Your task to perform on an android device: turn off improve location accuracy Image 0: 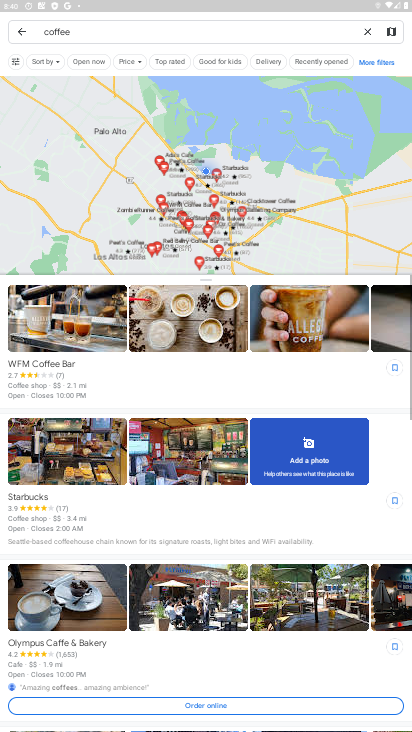
Step 0: drag from (144, 570) to (189, 249)
Your task to perform on an android device: turn off improve location accuracy Image 1: 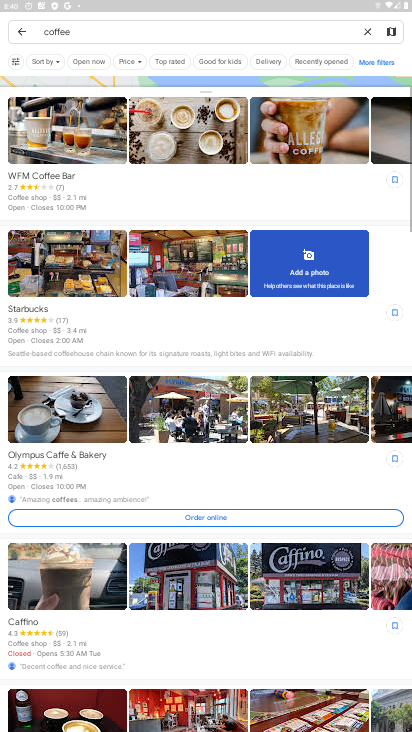
Step 1: drag from (399, 714) to (409, 680)
Your task to perform on an android device: turn off improve location accuracy Image 2: 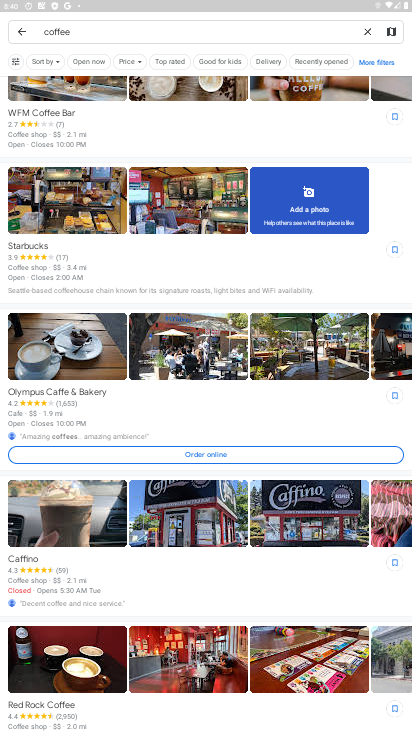
Step 2: drag from (248, 207) to (325, 544)
Your task to perform on an android device: turn off improve location accuracy Image 3: 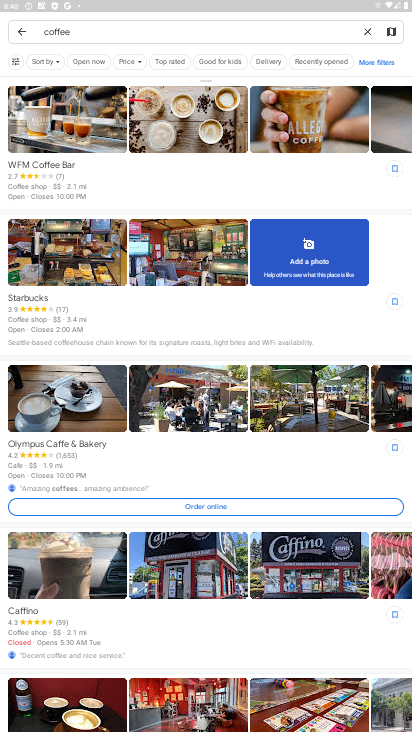
Step 3: drag from (245, 599) to (245, 218)
Your task to perform on an android device: turn off improve location accuracy Image 4: 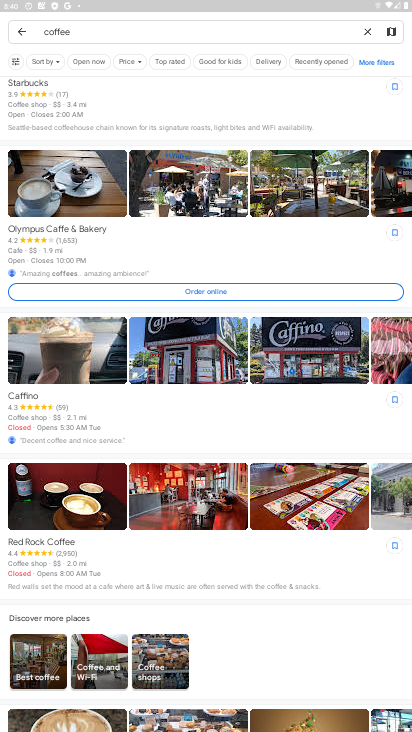
Step 4: drag from (253, 630) to (337, 94)
Your task to perform on an android device: turn off improve location accuracy Image 5: 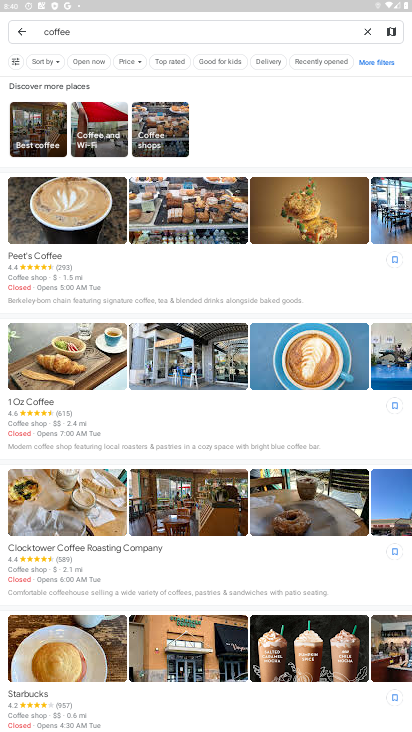
Step 5: drag from (232, 135) to (255, 615)
Your task to perform on an android device: turn off improve location accuracy Image 6: 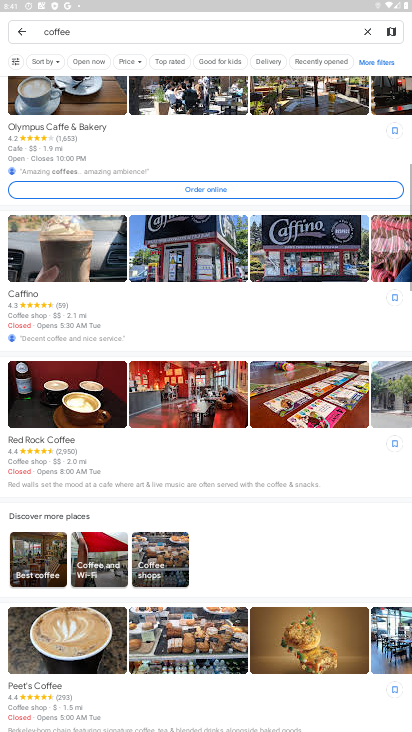
Step 6: click (208, 244)
Your task to perform on an android device: turn off improve location accuracy Image 7: 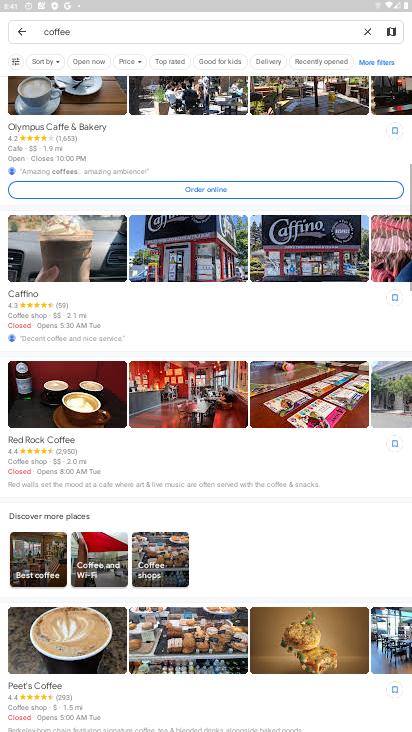
Step 7: drag from (201, 182) to (298, 670)
Your task to perform on an android device: turn off improve location accuracy Image 8: 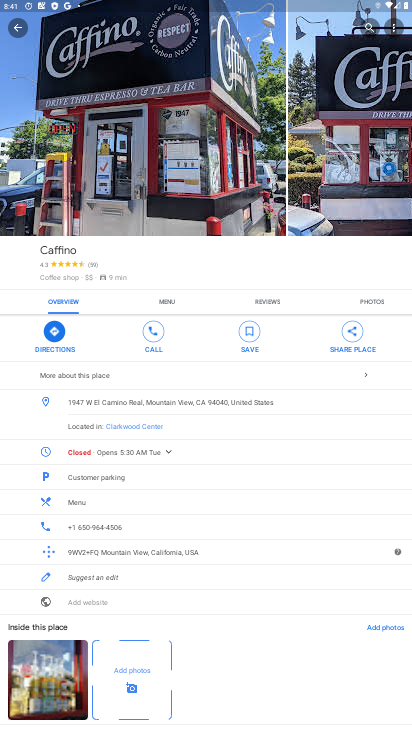
Step 8: drag from (204, 149) to (264, 730)
Your task to perform on an android device: turn off improve location accuracy Image 9: 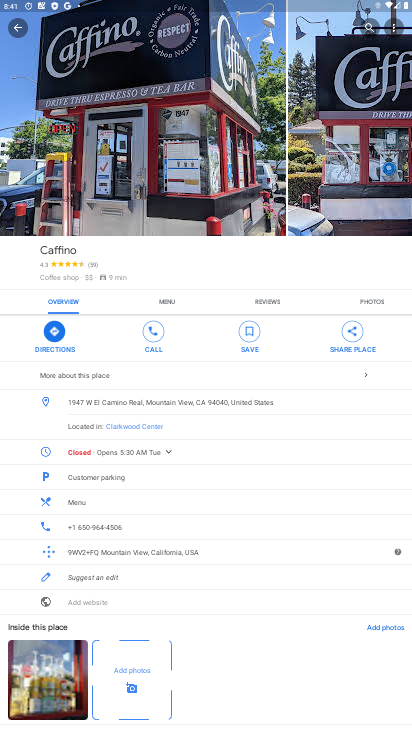
Step 9: press home button
Your task to perform on an android device: turn off improve location accuracy Image 10: 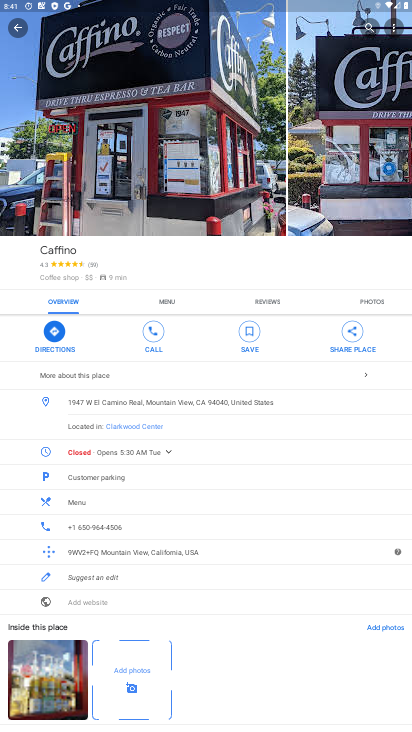
Step 10: press home button
Your task to perform on an android device: turn off improve location accuracy Image 11: 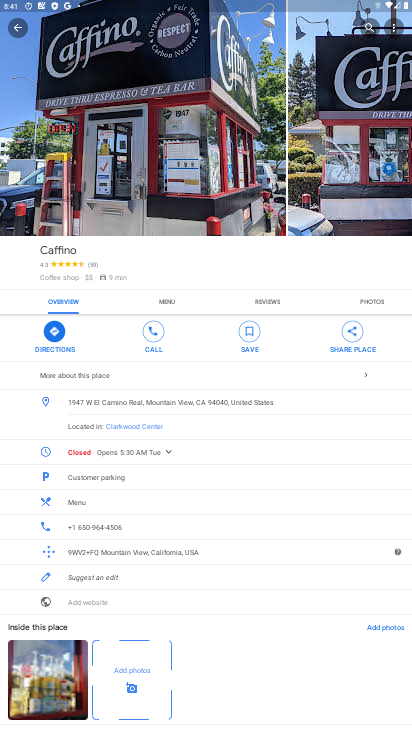
Step 11: click (287, 34)
Your task to perform on an android device: turn off improve location accuracy Image 12: 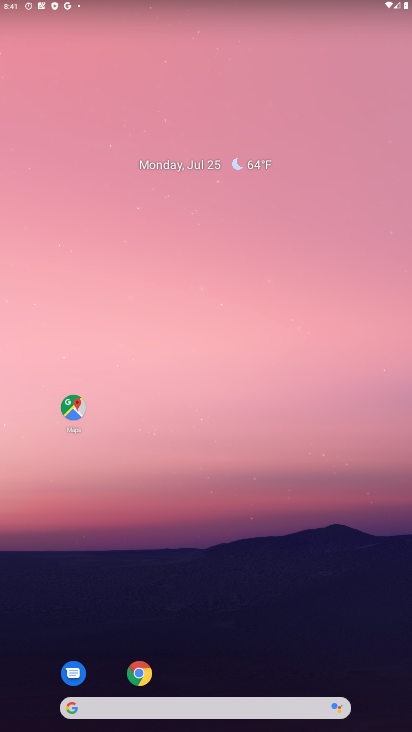
Step 12: drag from (220, 588) to (352, 1)
Your task to perform on an android device: turn off improve location accuracy Image 13: 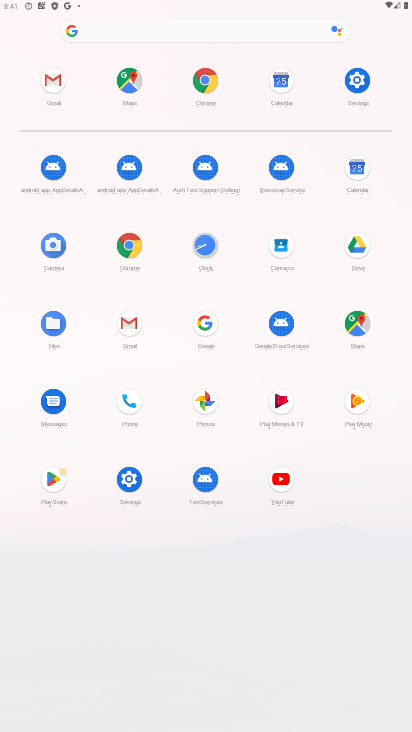
Step 13: drag from (246, 608) to (280, 113)
Your task to perform on an android device: turn off improve location accuracy Image 14: 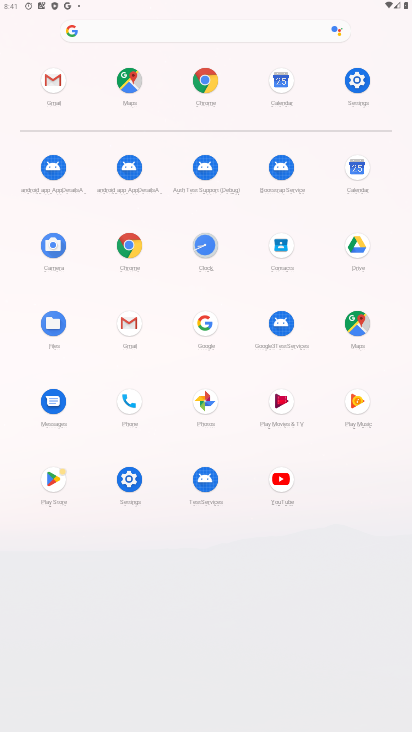
Step 14: click (123, 482)
Your task to perform on an android device: turn off improve location accuracy Image 15: 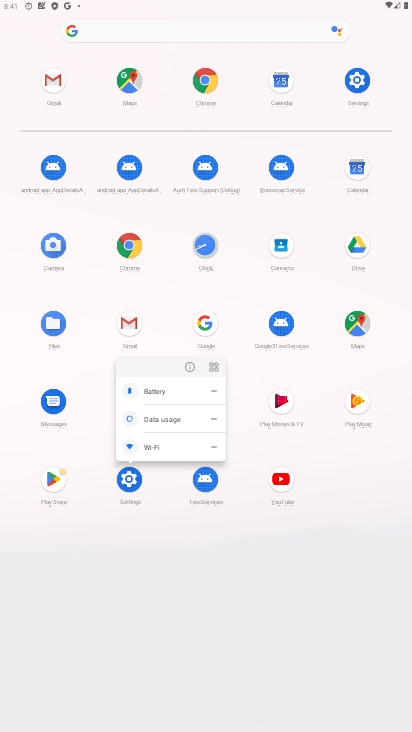
Step 15: click (192, 364)
Your task to perform on an android device: turn off improve location accuracy Image 16: 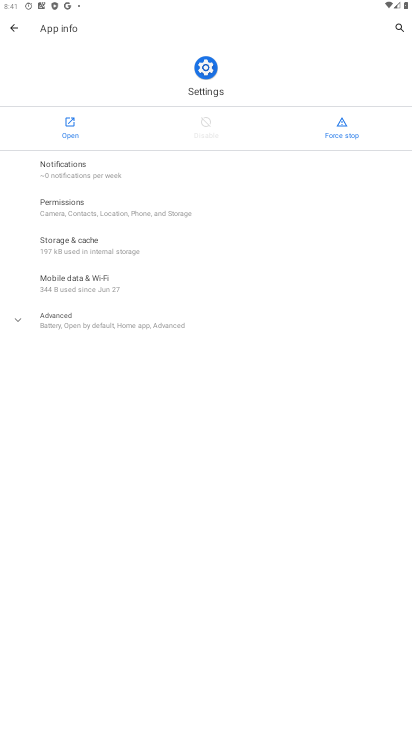
Step 16: click (68, 121)
Your task to perform on an android device: turn off improve location accuracy Image 17: 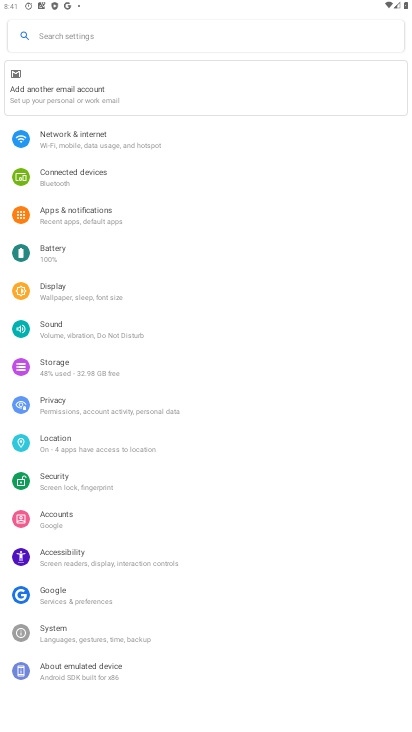
Step 17: click (74, 438)
Your task to perform on an android device: turn off improve location accuracy Image 18: 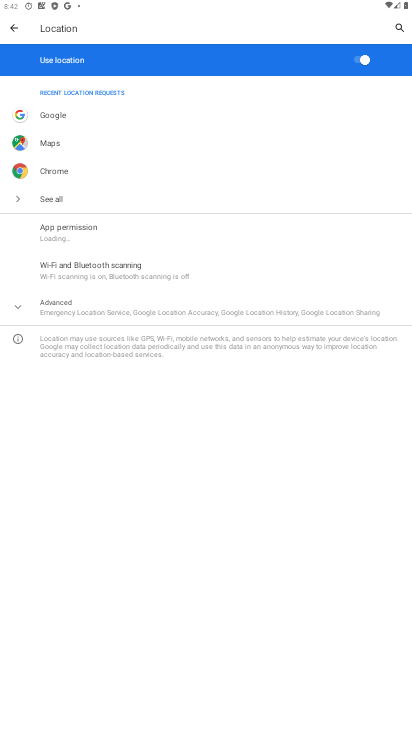
Step 18: click (41, 305)
Your task to perform on an android device: turn off improve location accuracy Image 19: 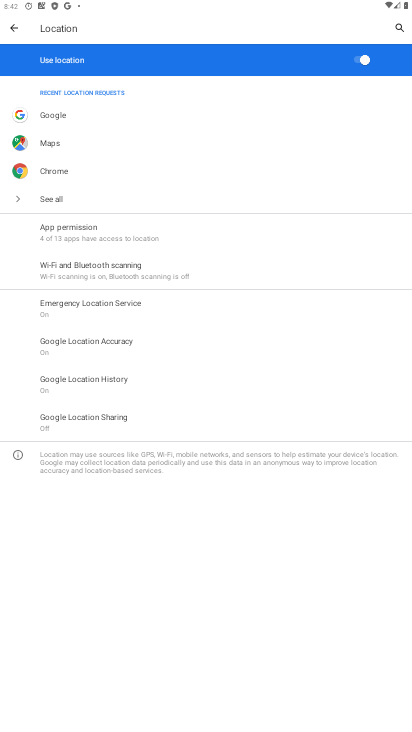
Step 19: click (107, 347)
Your task to perform on an android device: turn off improve location accuracy Image 20: 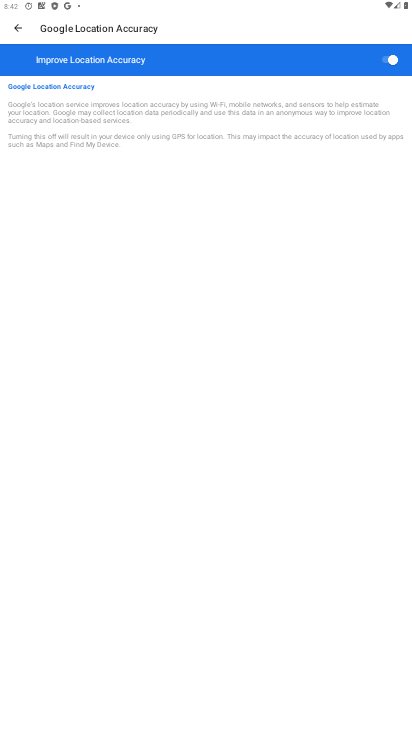
Step 20: click (391, 63)
Your task to perform on an android device: turn off improve location accuracy Image 21: 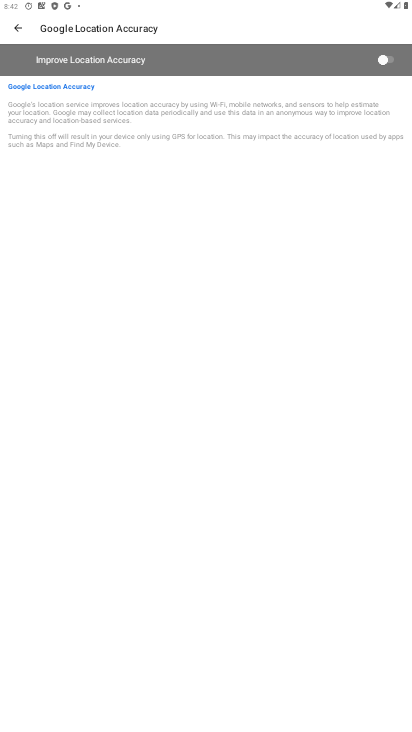
Step 21: task complete